Your task to perform on an android device: Search for pizza restaurants on Maps Image 0: 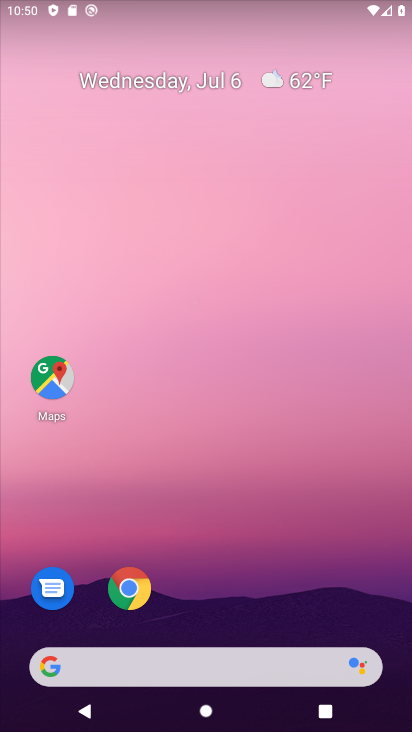
Step 0: click (55, 379)
Your task to perform on an android device: Search for pizza restaurants on Maps Image 1: 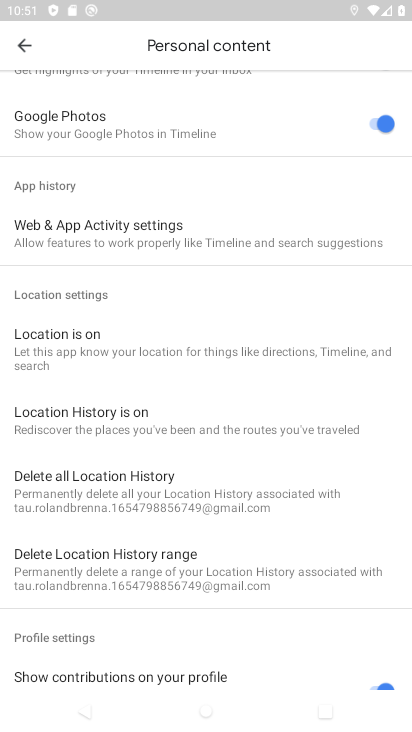
Step 1: press back button
Your task to perform on an android device: Search for pizza restaurants on Maps Image 2: 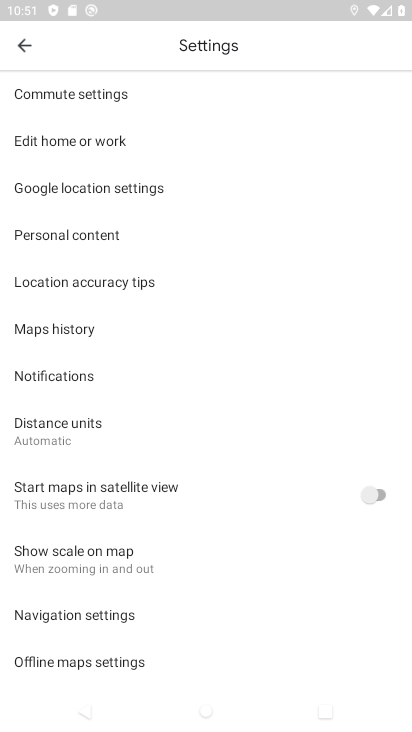
Step 2: press back button
Your task to perform on an android device: Search for pizza restaurants on Maps Image 3: 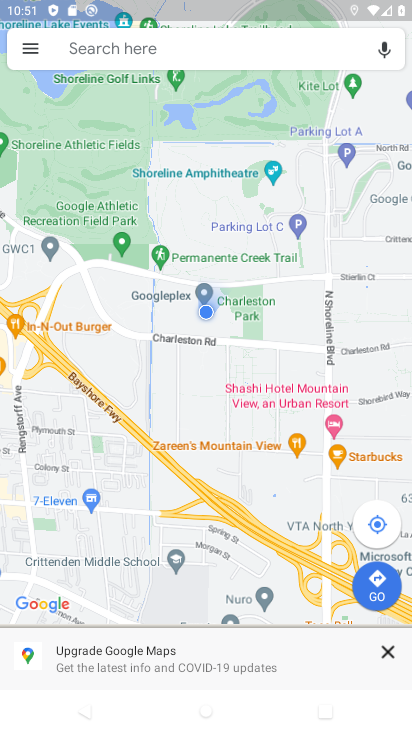
Step 3: click (106, 50)
Your task to perform on an android device: Search for pizza restaurants on Maps Image 4: 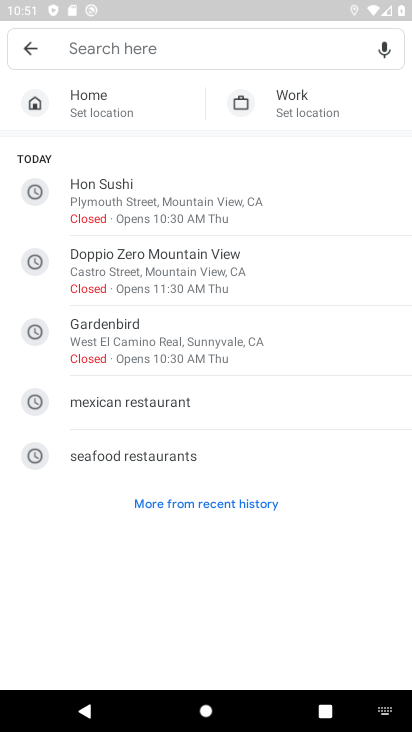
Step 4: type "pizza restaurants"
Your task to perform on an android device: Search for pizza restaurants on Maps Image 5: 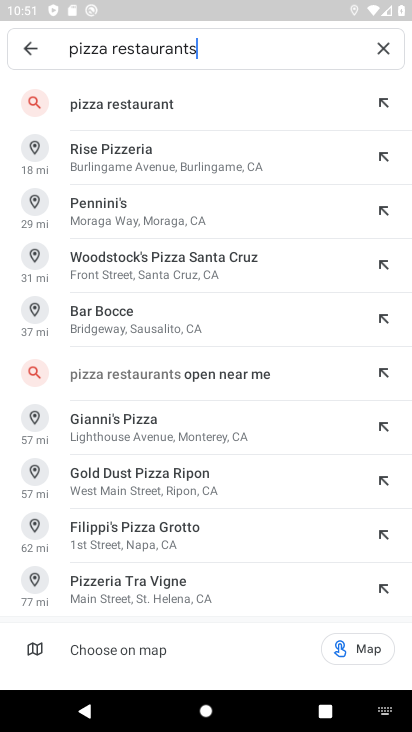
Step 5: click (143, 103)
Your task to perform on an android device: Search for pizza restaurants on Maps Image 6: 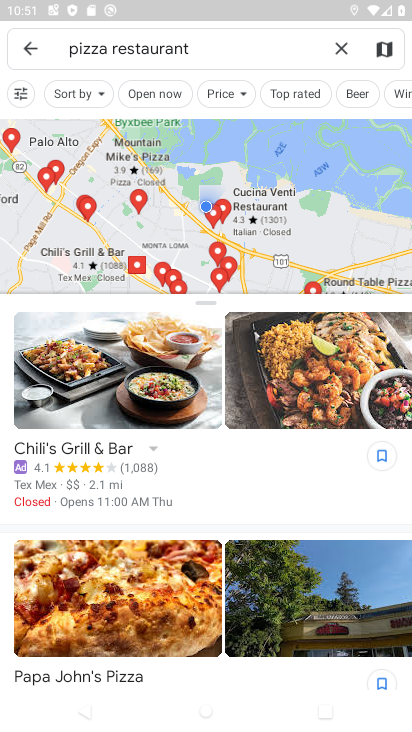
Step 6: task complete